Your task to perform on an android device: set default search engine in the chrome app Image 0: 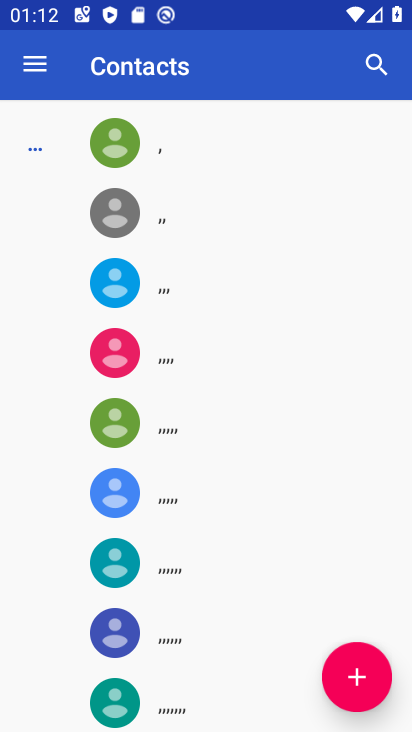
Step 0: press home button
Your task to perform on an android device: set default search engine in the chrome app Image 1: 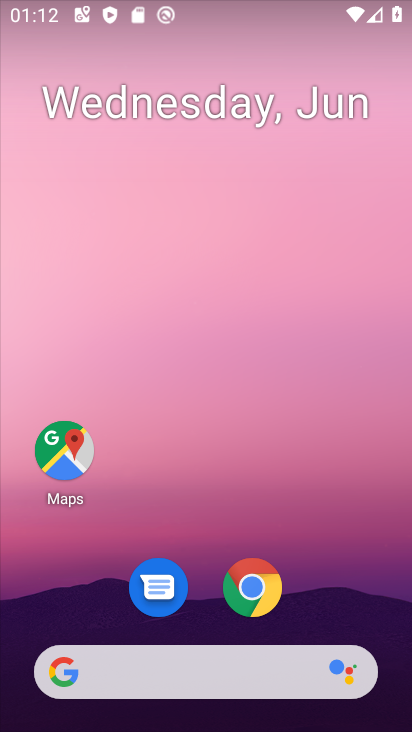
Step 1: click (250, 590)
Your task to perform on an android device: set default search engine in the chrome app Image 2: 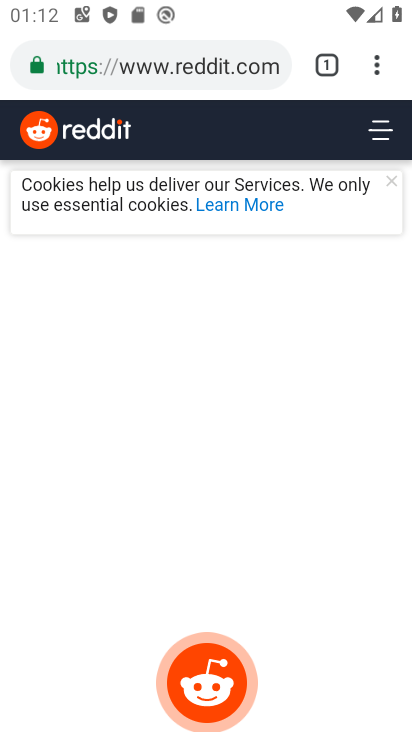
Step 2: drag from (369, 115) to (315, 235)
Your task to perform on an android device: set default search engine in the chrome app Image 3: 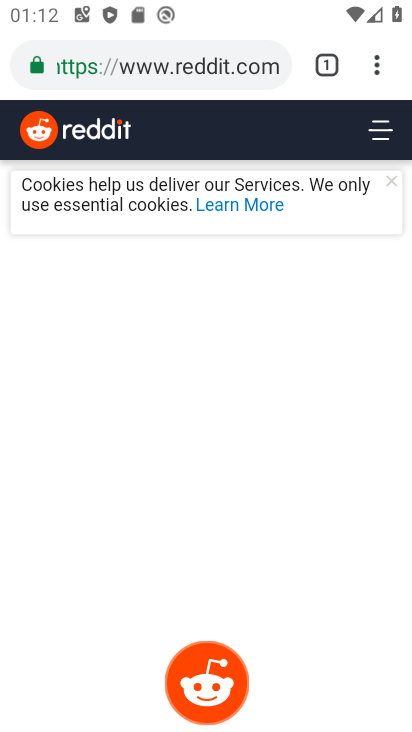
Step 3: drag from (370, 65) to (211, 633)
Your task to perform on an android device: set default search engine in the chrome app Image 4: 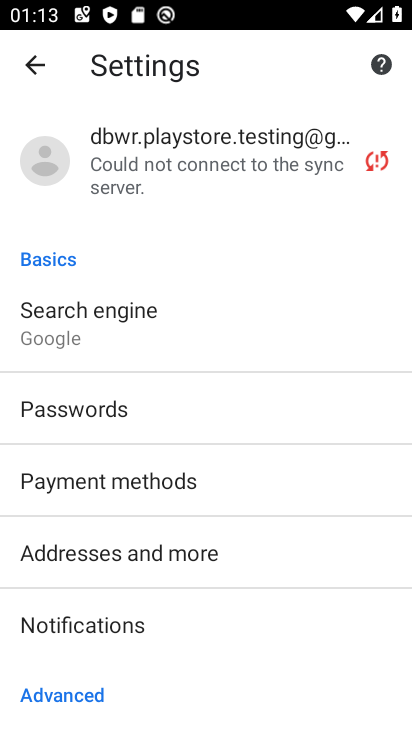
Step 4: click (149, 326)
Your task to perform on an android device: set default search engine in the chrome app Image 5: 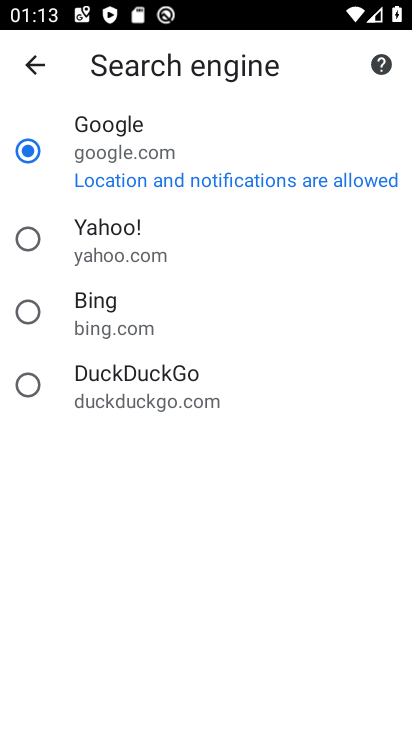
Step 5: task complete